Your task to perform on an android device: see sites visited before in the chrome app Image 0: 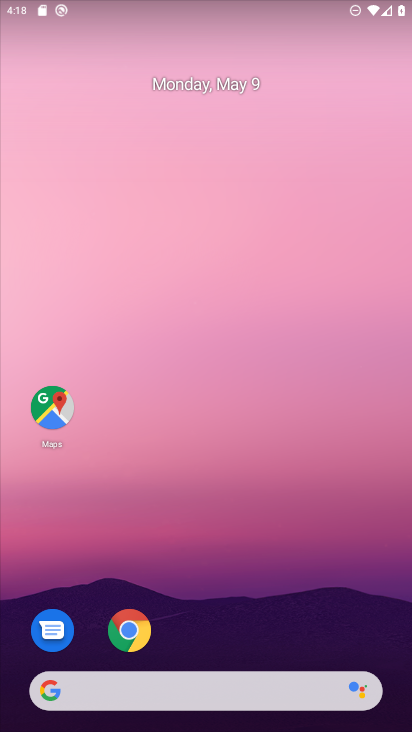
Step 0: drag from (316, 584) to (187, 3)
Your task to perform on an android device: see sites visited before in the chrome app Image 1: 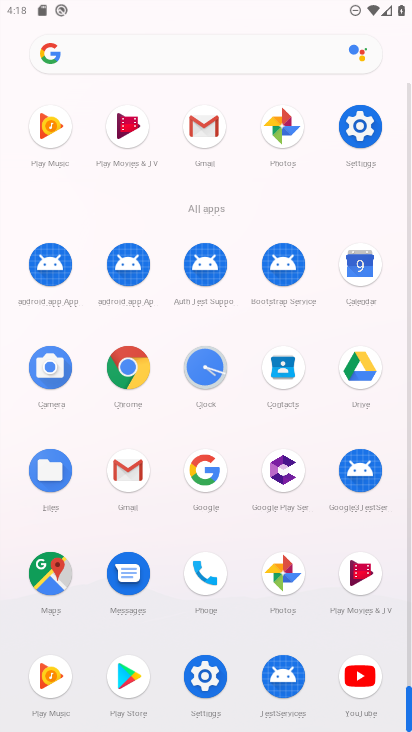
Step 1: drag from (229, 524) to (193, 10)
Your task to perform on an android device: see sites visited before in the chrome app Image 2: 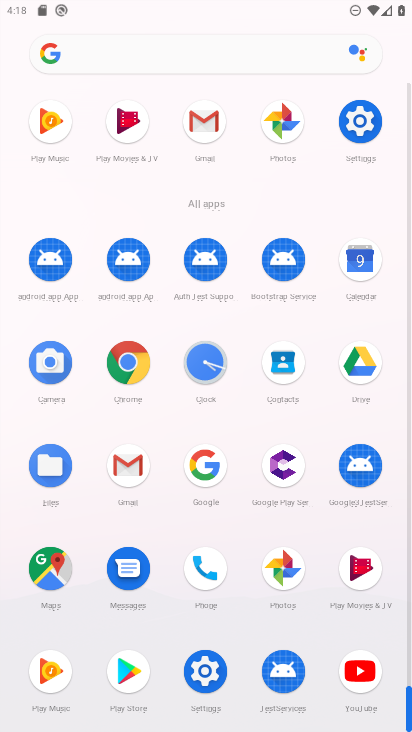
Step 2: click (126, 365)
Your task to perform on an android device: see sites visited before in the chrome app Image 3: 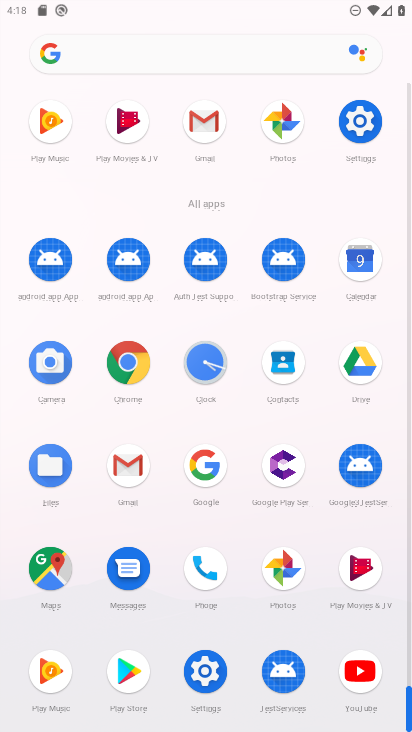
Step 3: click (126, 366)
Your task to perform on an android device: see sites visited before in the chrome app Image 4: 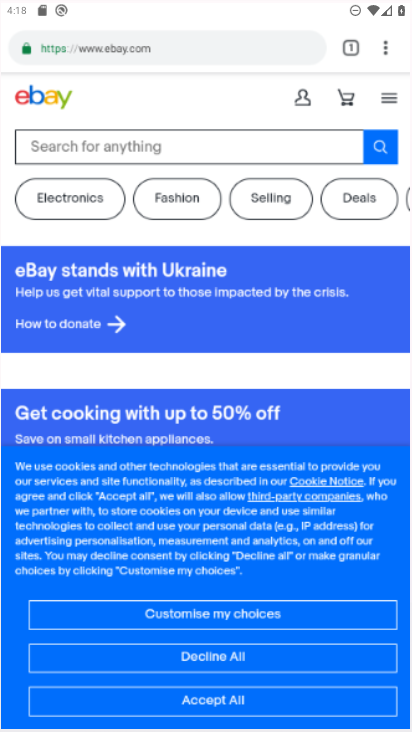
Step 4: click (126, 366)
Your task to perform on an android device: see sites visited before in the chrome app Image 5: 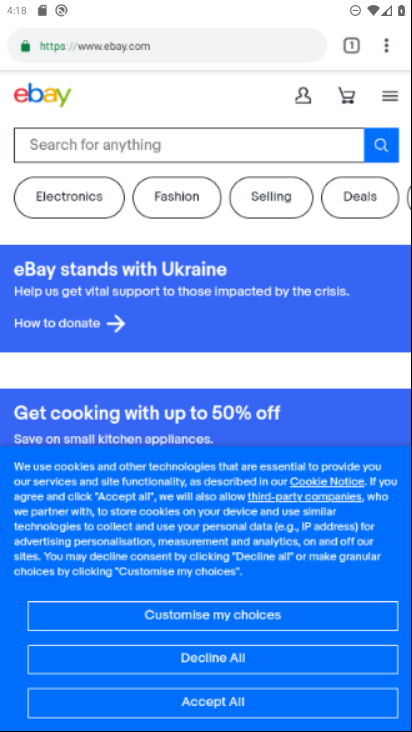
Step 5: click (127, 367)
Your task to perform on an android device: see sites visited before in the chrome app Image 6: 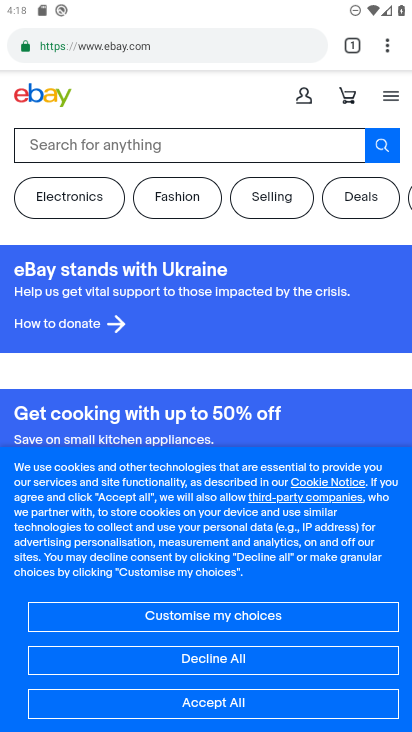
Step 6: click (390, 37)
Your task to perform on an android device: see sites visited before in the chrome app Image 7: 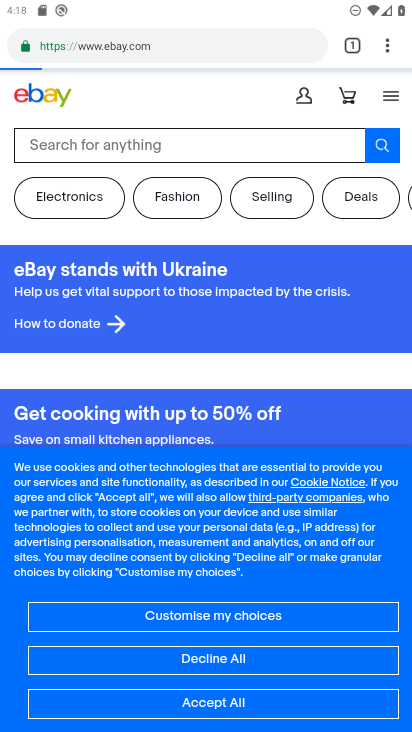
Step 7: click (389, 38)
Your task to perform on an android device: see sites visited before in the chrome app Image 8: 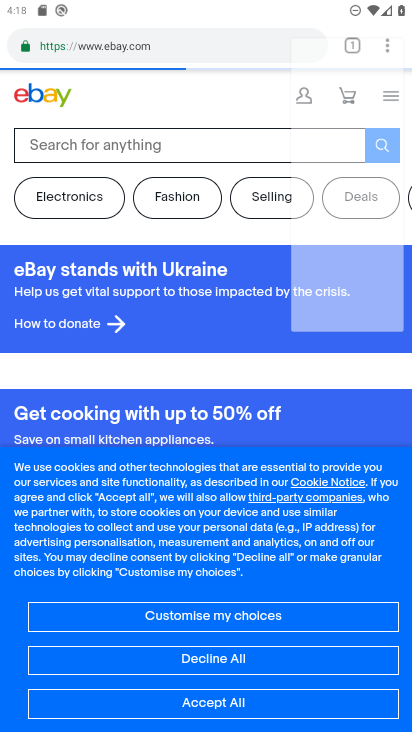
Step 8: drag from (389, 38) to (215, 214)
Your task to perform on an android device: see sites visited before in the chrome app Image 9: 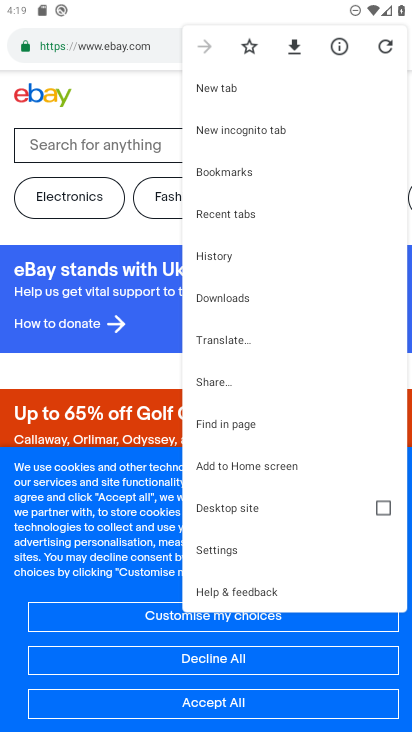
Step 9: click (214, 213)
Your task to perform on an android device: see sites visited before in the chrome app Image 10: 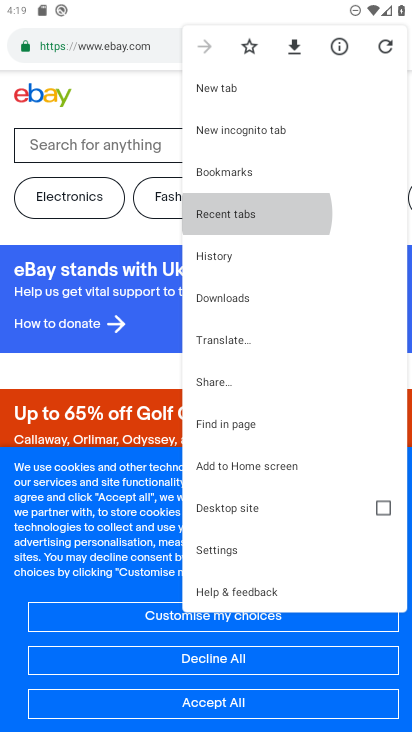
Step 10: click (214, 213)
Your task to perform on an android device: see sites visited before in the chrome app Image 11: 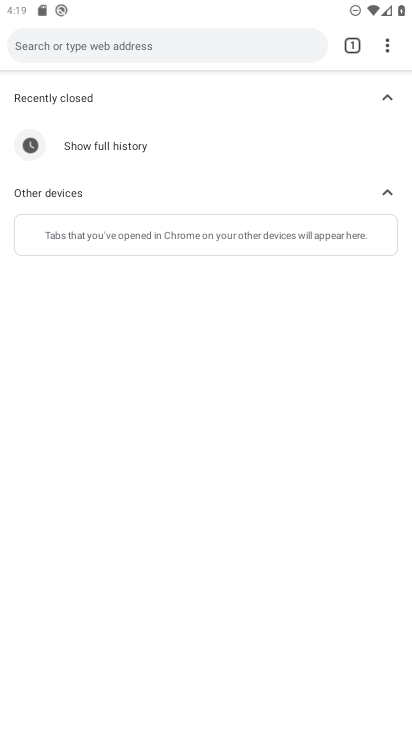
Step 11: click (214, 213)
Your task to perform on an android device: see sites visited before in the chrome app Image 12: 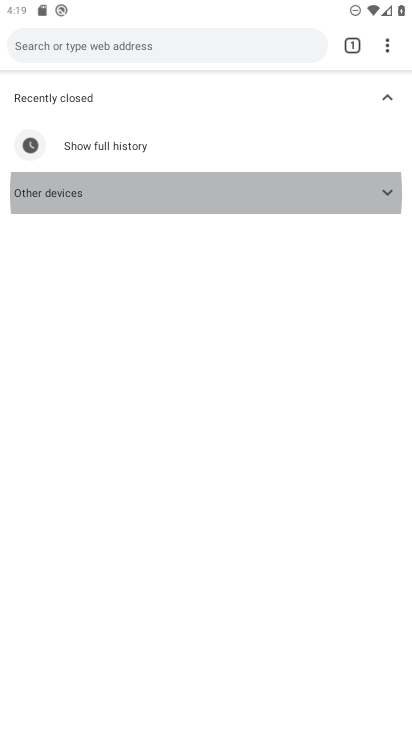
Step 12: click (214, 213)
Your task to perform on an android device: see sites visited before in the chrome app Image 13: 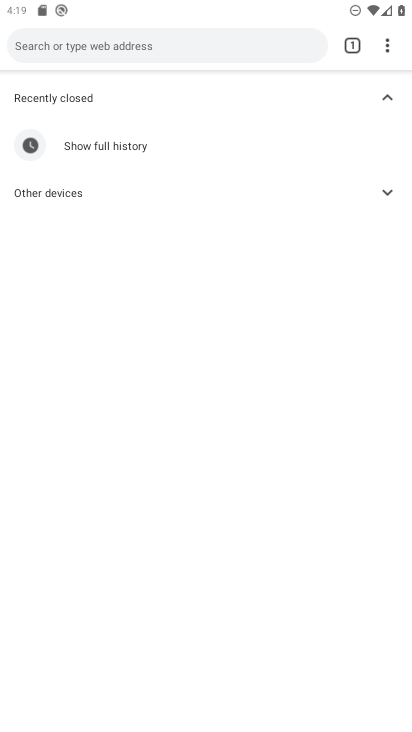
Step 13: task complete